Your task to perform on an android device: Is it going to rain this weekend? Image 0: 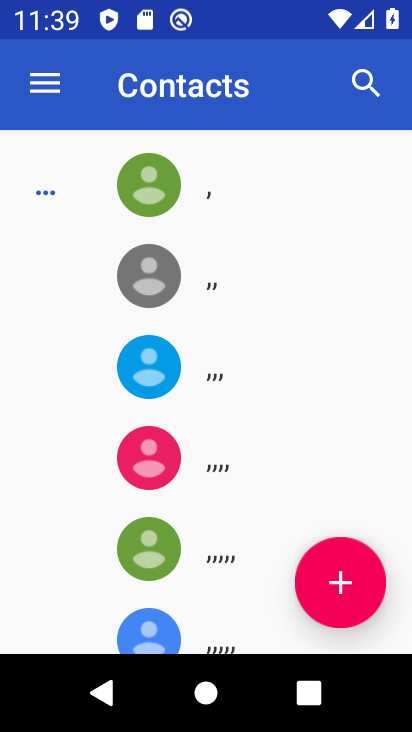
Step 0: press home button
Your task to perform on an android device: Is it going to rain this weekend? Image 1: 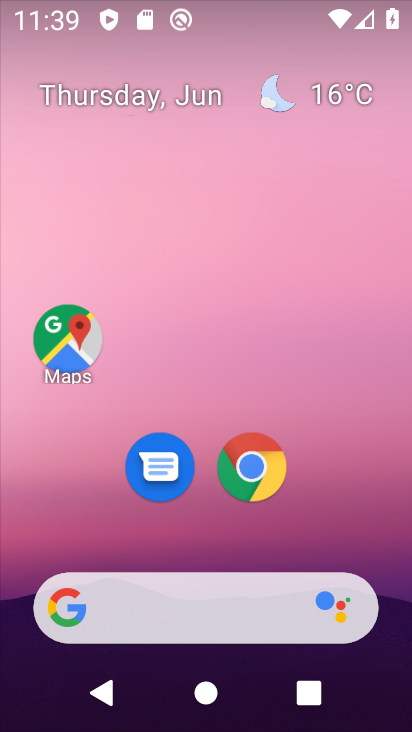
Step 1: click (334, 97)
Your task to perform on an android device: Is it going to rain this weekend? Image 2: 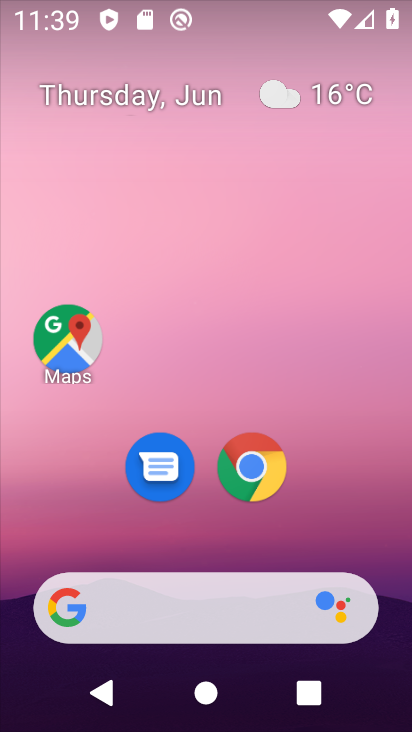
Step 2: click (328, 98)
Your task to perform on an android device: Is it going to rain this weekend? Image 3: 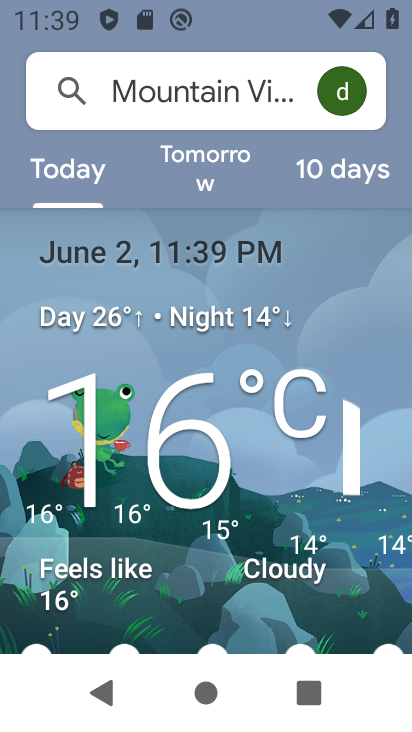
Step 3: click (345, 163)
Your task to perform on an android device: Is it going to rain this weekend? Image 4: 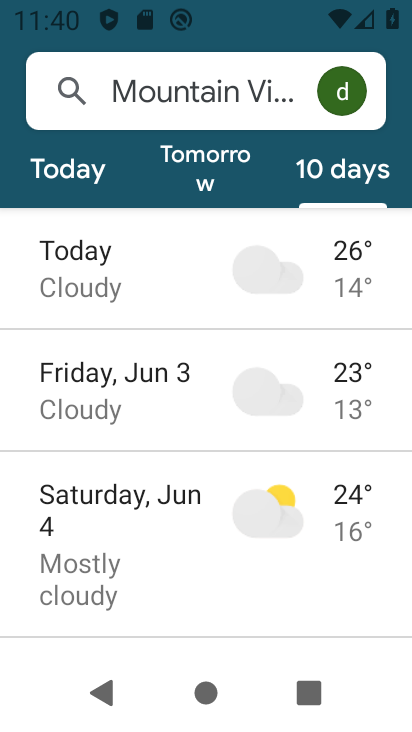
Step 4: task complete